Your task to perform on an android device: Show me recent news Image 0: 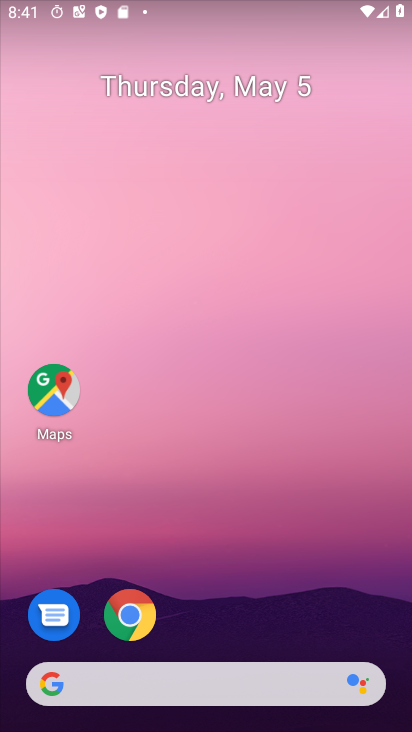
Step 0: click (123, 681)
Your task to perform on an android device: Show me recent news Image 1: 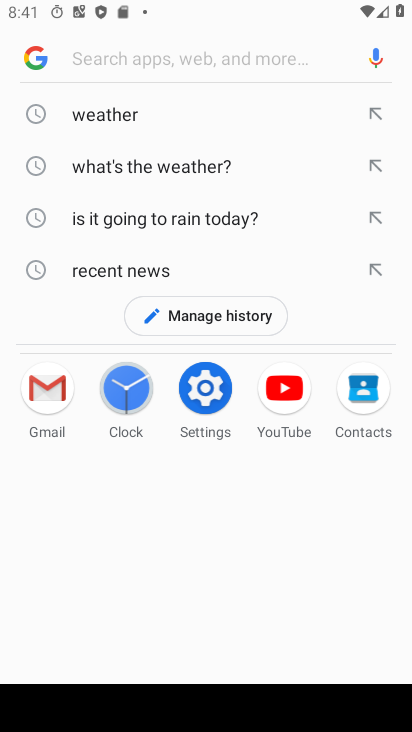
Step 1: type "recent news"
Your task to perform on an android device: Show me recent news Image 2: 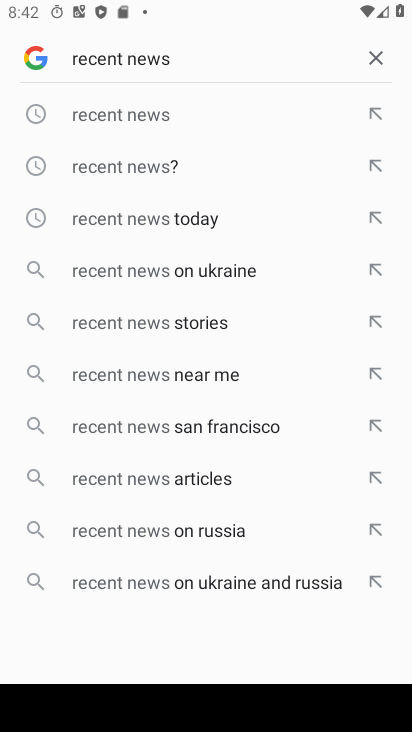
Step 2: click (134, 118)
Your task to perform on an android device: Show me recent news Image 3: 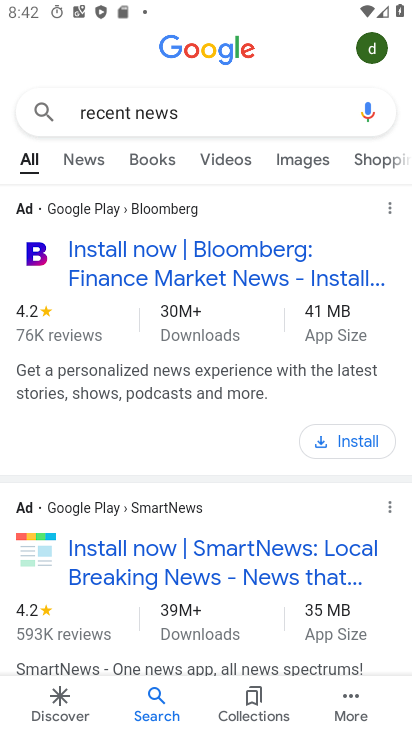
Step 3: task complete